Your task to perform on an android device: toggle wifi Image 0: 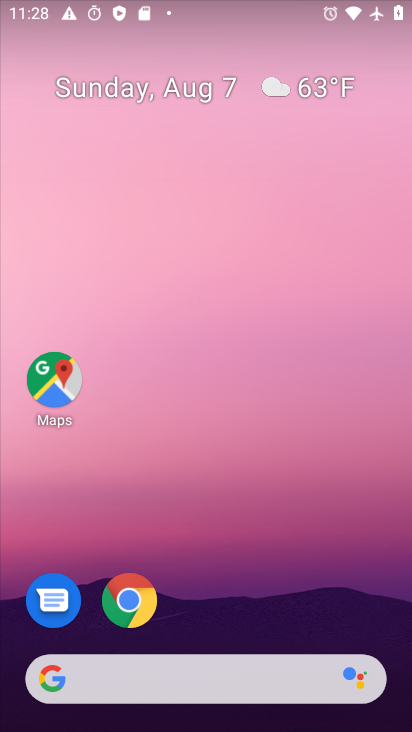
Step 0: drag from (223, 649) to (232, 142)
Your task to perform on an android device: toggle wifi Image 1: 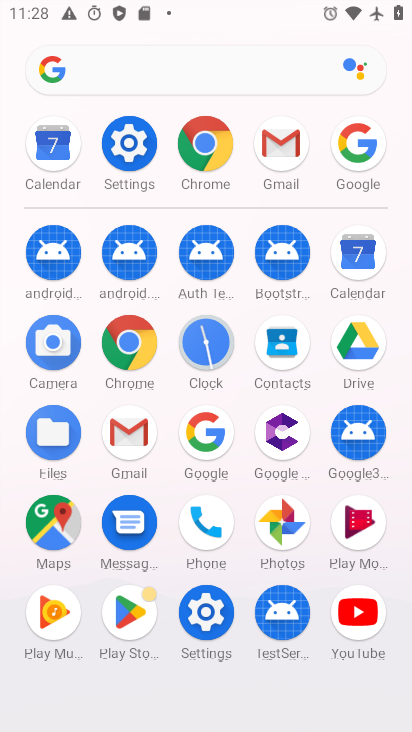
Step 1: click (115, 158)
Your task to perform on an android device: toggle wifi Image 2: 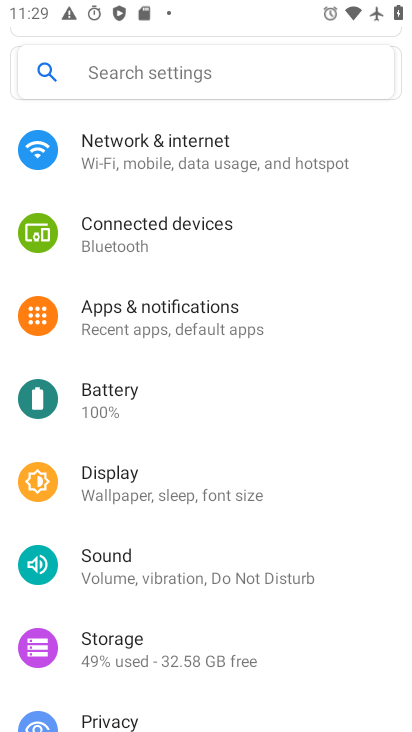
Step 2: click (172, 162)
Your task to perform on an android device: toggle wifi Image 3: 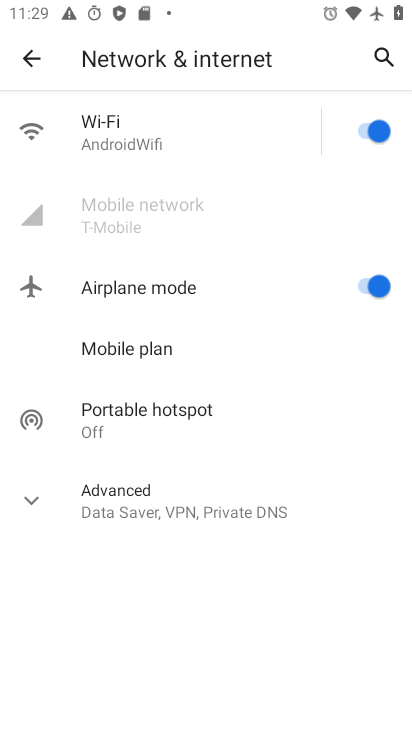
Step 3: click (359, 138)
Your task to perform on an android device: toggle wifi Image 4: 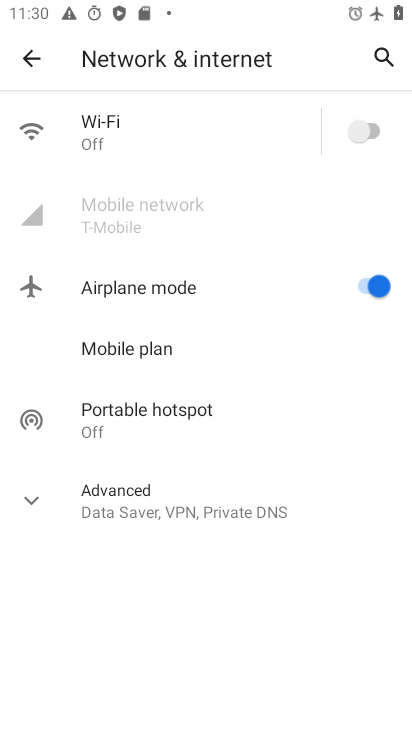
Step 4: task complete